Your task to perform on an android device: Open Yahoo.com Image 0: 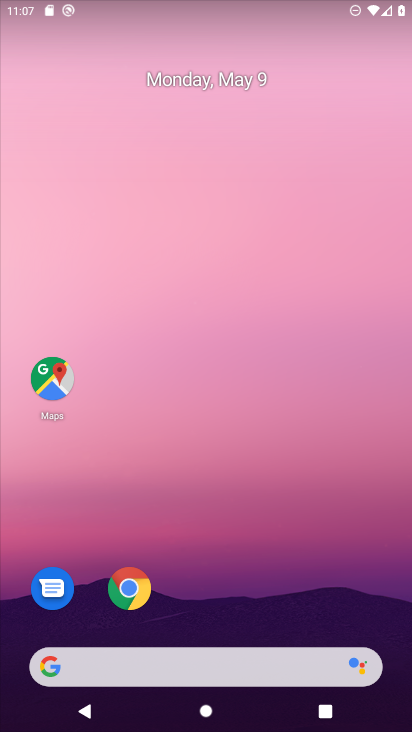
Step 0: click (133, 592)
Your task to perform on an android device: Open Yahoo.com Image 1: 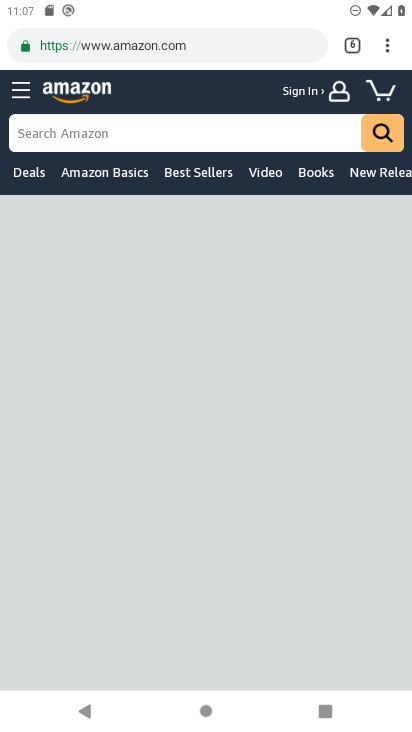
Step 1: click (347, 48)
Your task to perform on an android device: Open Yahoo.com Image 2: 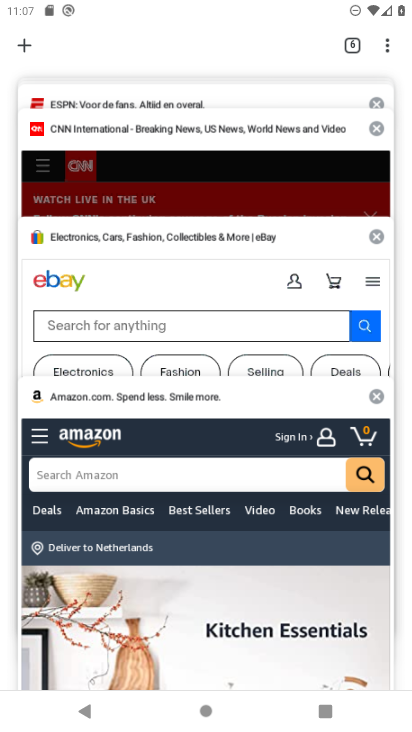
Step 2: click (20, 36)
Your task to perform on an android device: Open Yahoo.com Image 3: 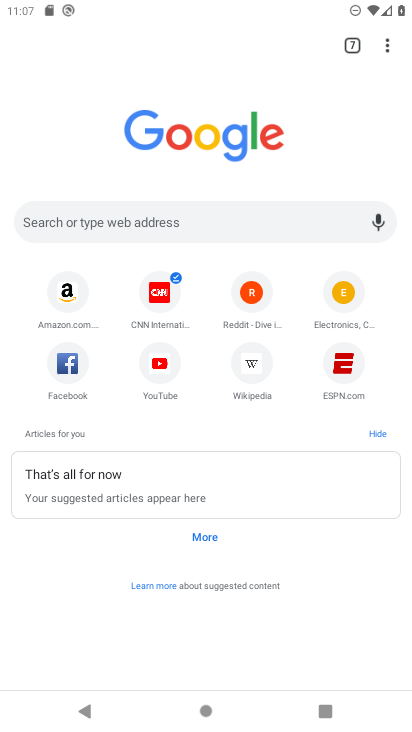
Step 3: click (251, 220)
Your task to perform on an android device: Open Yahoo.com Image 4: 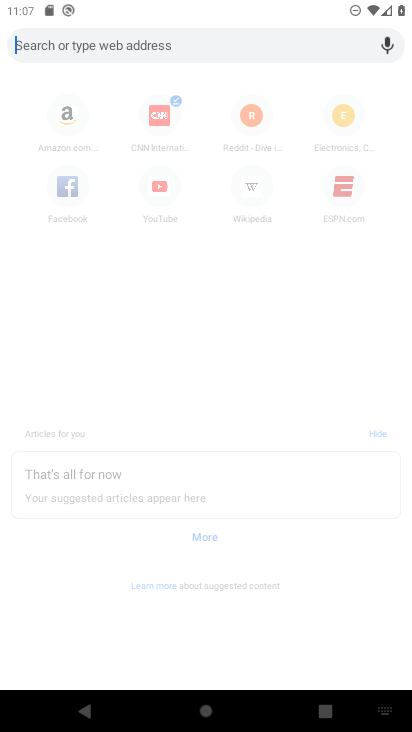
Step 4: type "yahoo.com"
Your task to perform on an android device: Open Yahoo.com Image 5: 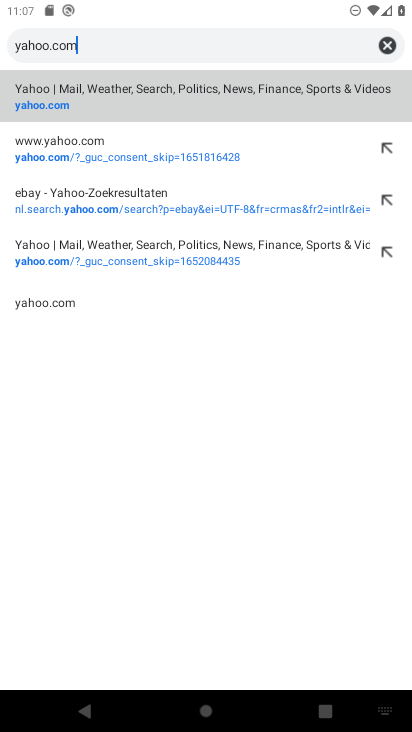
Step 5: click (201, 148)
Your task to perform on an android device: Open Yahoo.com Image 6: 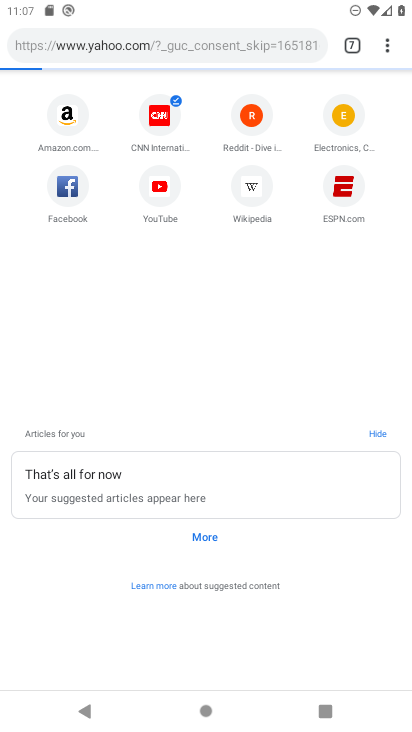
Step 6: task complete